Your task to perform on an android device: Go to Maps Image 0: 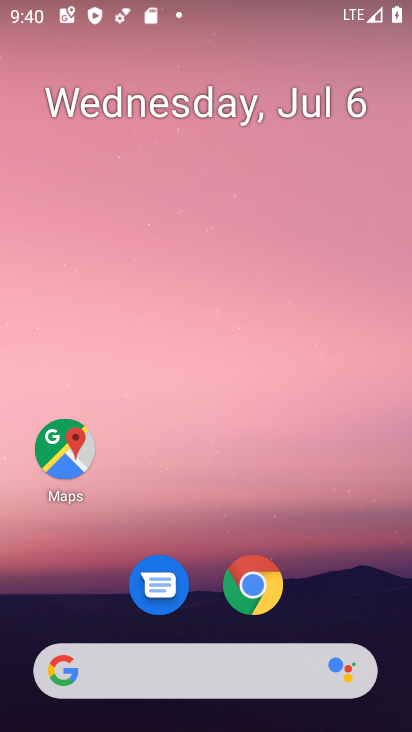
Step 0: click (63, 442)
Your task to perform on an android device: Go to Maps Image 1: 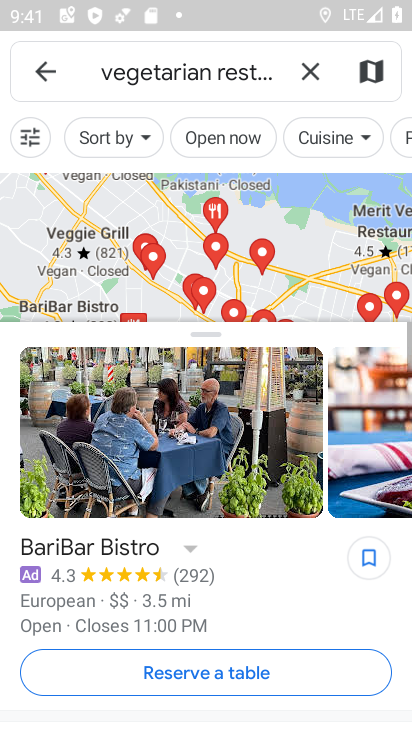
Step 1: click (46, 64)
Your task to perform on an android device: Go to Maps Image 2: 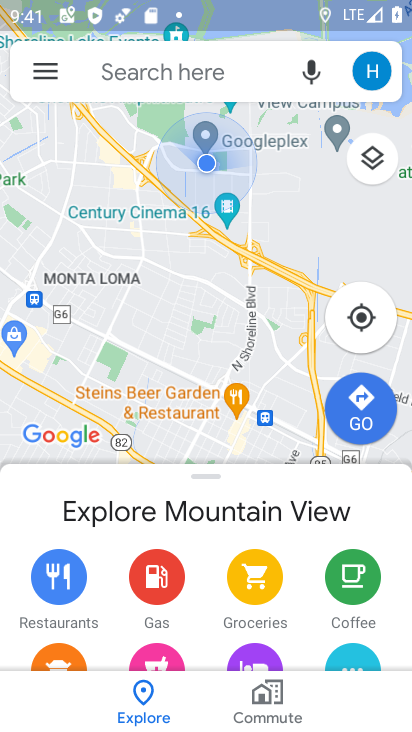
Step 2: task complete